Your task to perform on an android device: turn on the 12-hour format for clock Image 0: 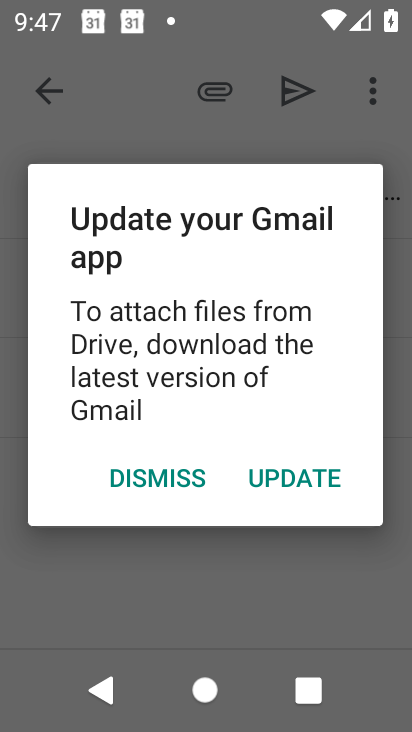
Step 0: press home button
Your task to perform on an android device: turn on the 12-hour format for clock Image 1: 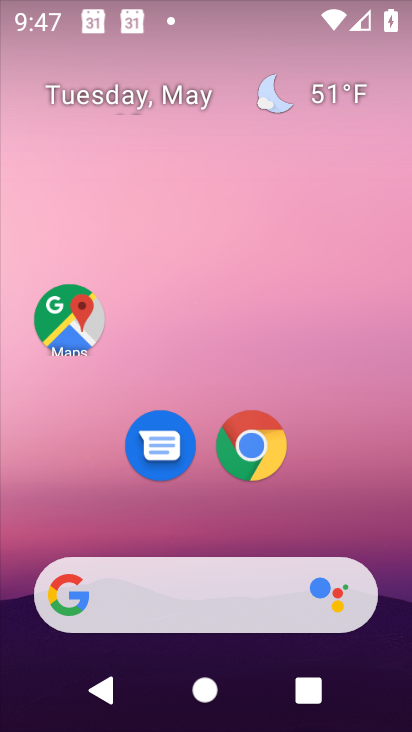
Step 1: drag from (231, 573) to (216, 151)
Your task to perform on an android device: turn on the 12-hour format for clock Image 2: 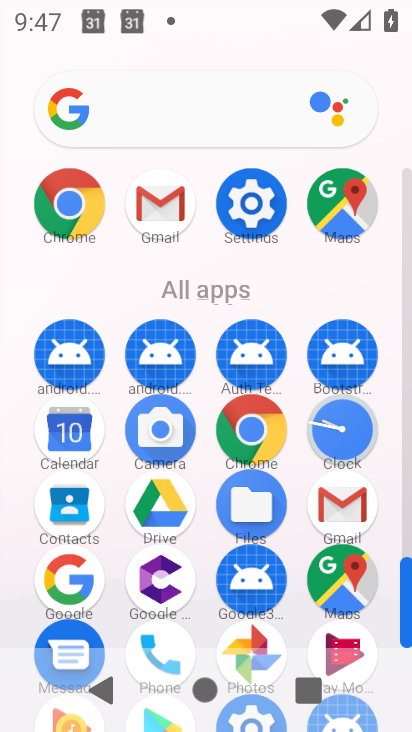
Step 2: click (254, 227)
Your task to perform on an android device: turn on the 12-hour format for clock Image 3: 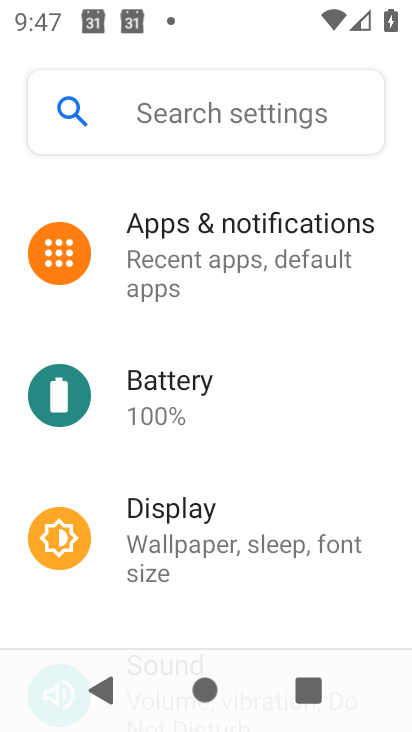
Step 3: drag from (180, 548) to (154, 85)
Your task to perform on an android device: turn on the 12-hour format for clock Image 4: 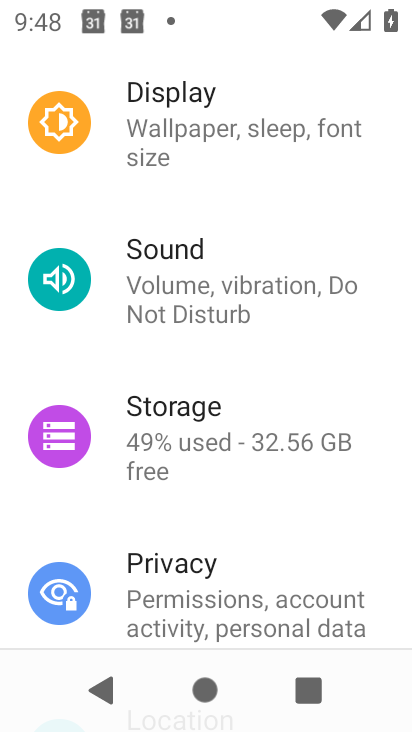
Step 4: drag from (195, 514) to (149, 9)
Your task to perform on an android device: turn on the 12-hour format for clock Image 5: 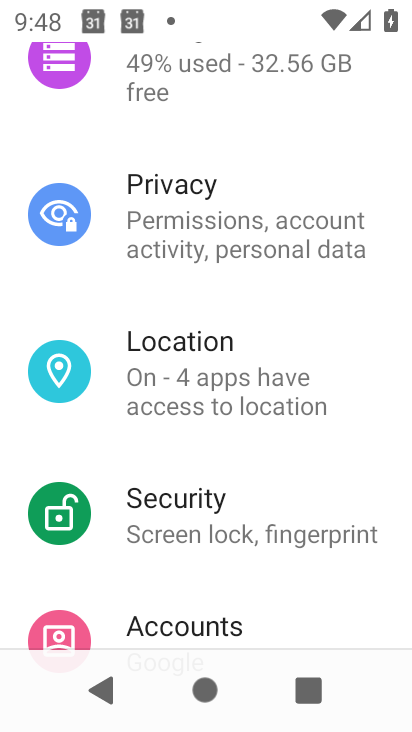
Step 5: drag from (189, 560) to (168, 127)
Your task to perform on an android device: turn on the 12-hour format for clock Image 6: 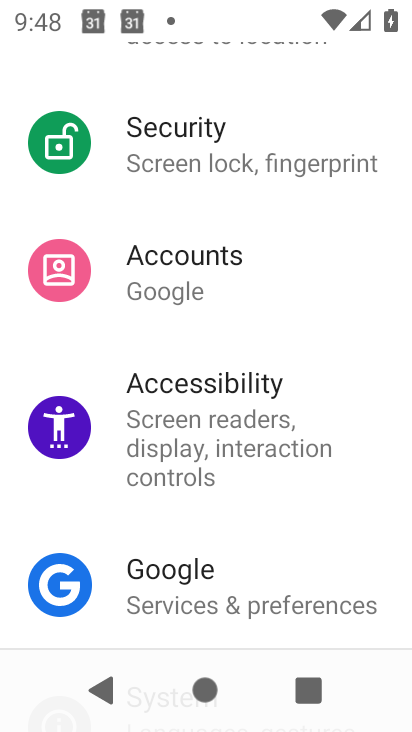
Step 6: drag from (199, 525) to (181, 69)
Your task to perform on an android device: turn on the 12-hour format for clock Image 7: 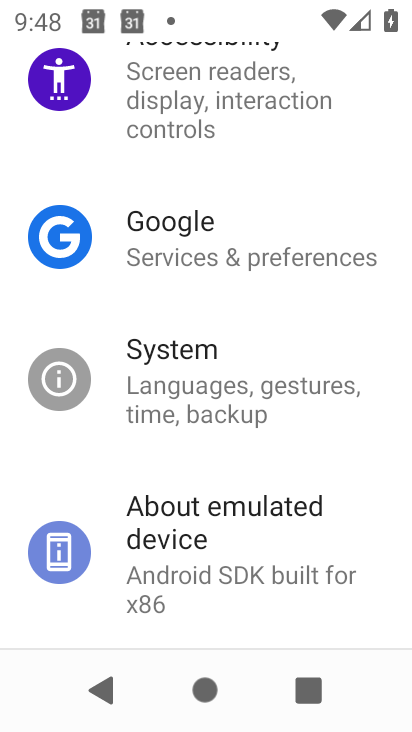
Step 7: click (243, 369)
Your task to perform on an android device: turn on the 12-hour format for clock Image 8: 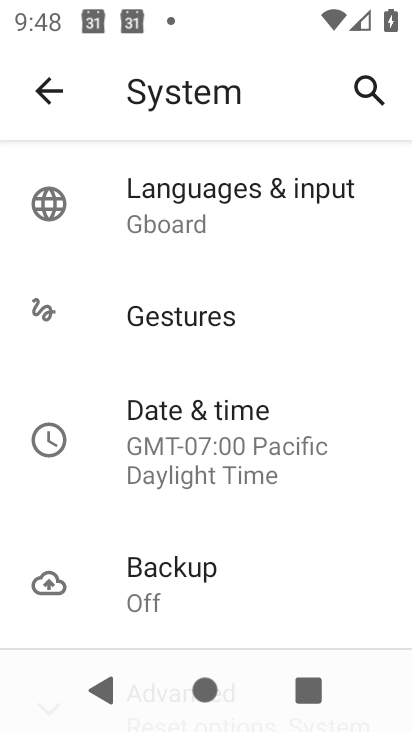
Step 8: click (212, 464)
Your task to perform on an android device: turn on the 12-hour format for clock Image 9: 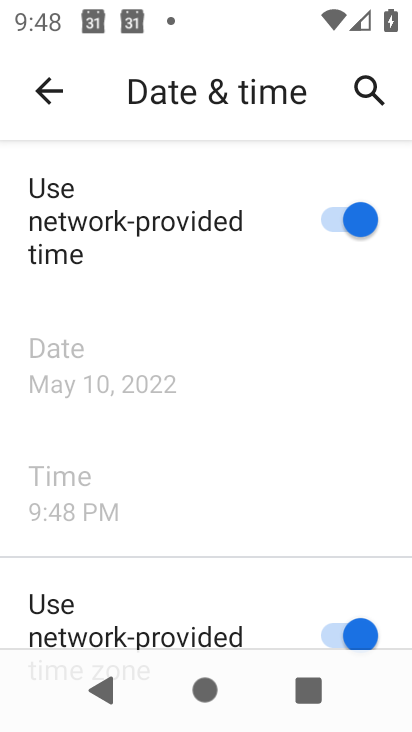
Step 9: task complete